Your task to perform on an android device: Open the calendar app, open the side menu, and click the "Day" option Image 0: 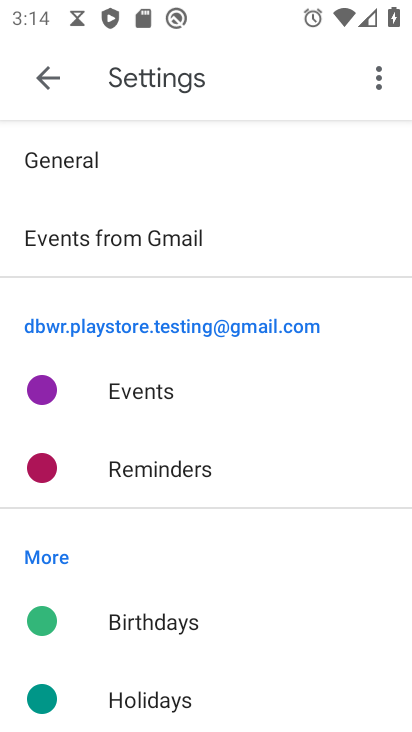
Step 0: press home button
Your task to perform on an android device: Open the calendar app, open the side menu, and click the "Day" option Image 1: 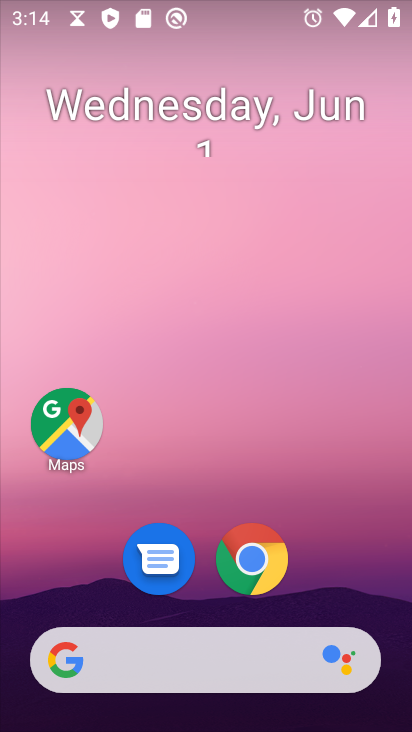
Step 1: drag from (321, 594) to (316, 1)
Your task to perform on an android device: Open the calendar app, open the side menu, and click the "Day" option Image 2: 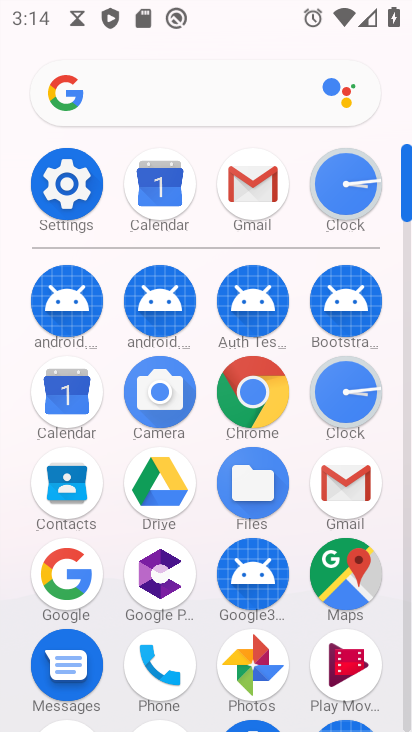
Step 2: drag from (250, 110) to (250, 46)
Your task to perform on an android device: Open the calendar app, open the side menu, and click the "Day" option Image 3: 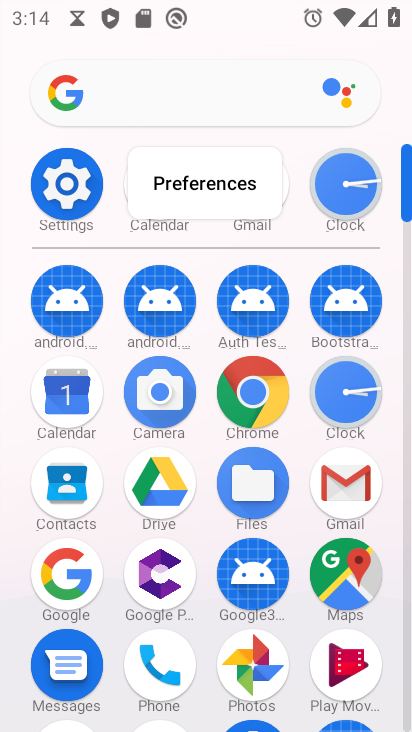
Step 3: click (65, 370)
Your task to perform on an android device: Open the calendar app, open the side menu, and click the "Day" option Image 4: 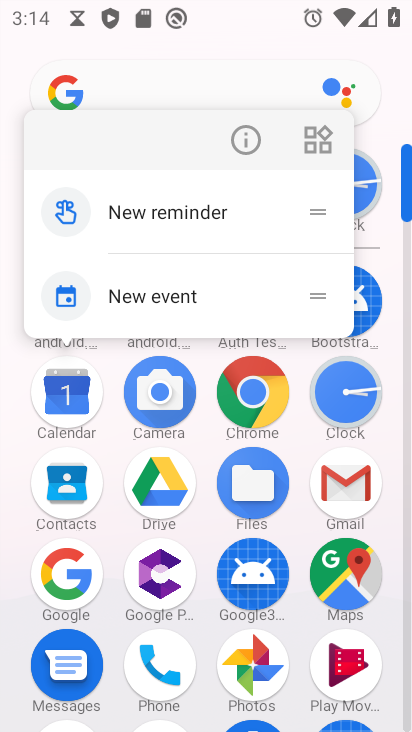
Step 4: click (76, 391)
Your task to perform on an android device: Open the calendar app, open the side menu, and click the "Day" option Image 5: 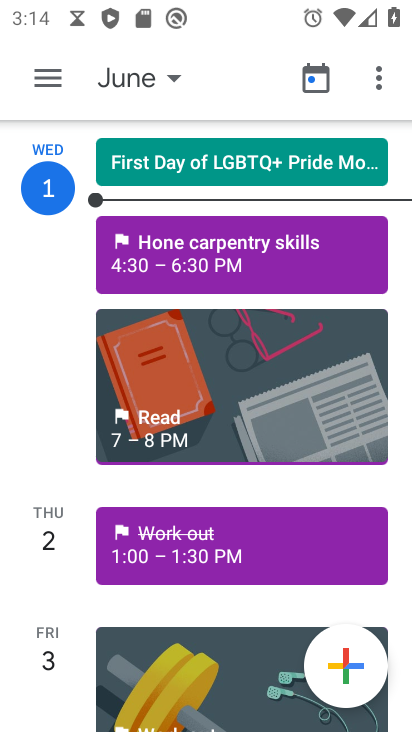
Step 5: click (155, 74)
Your task to perform on an android device: Open the calendar app, open the side menu, and click the "Day" option Image 6: 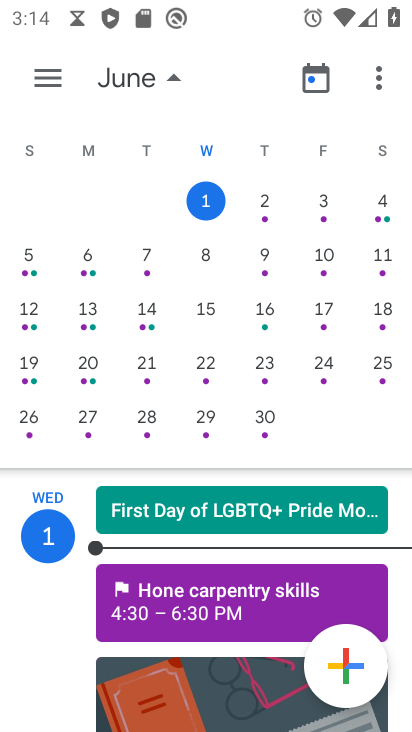
Step 6: click (58, 78)
Your task to perform on an android device: Open the calendar app, open the side menu, and click the "Day" option Image 7: 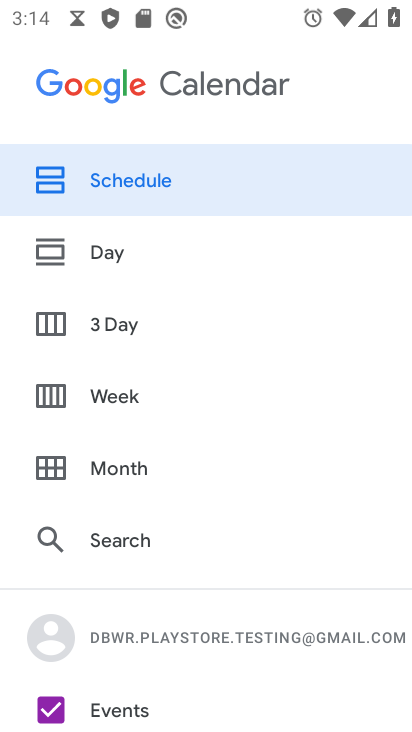
Step 7: click (107, 258)
Your task to perform on an android device: Open the calendar app, open the side menu, and click the "Day" option Image 8: 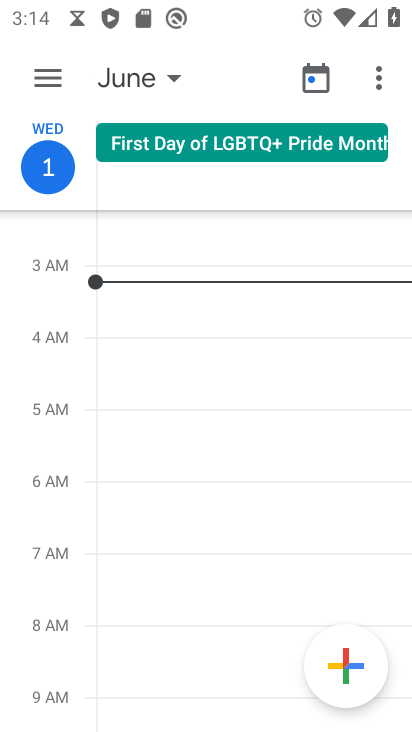
Step 8: task complete